Your task to perform on an android device: turn on data saver in the chrome app Image 0: 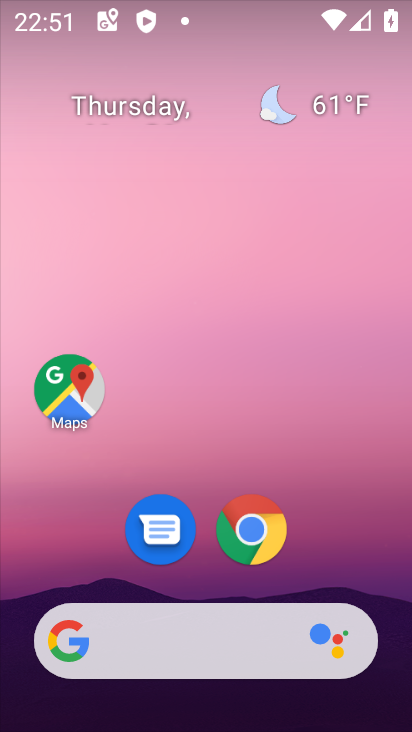
Step 0: click (276, 544)
Your task to perform on an android device: turn on data saver in the chrome app Image 1: 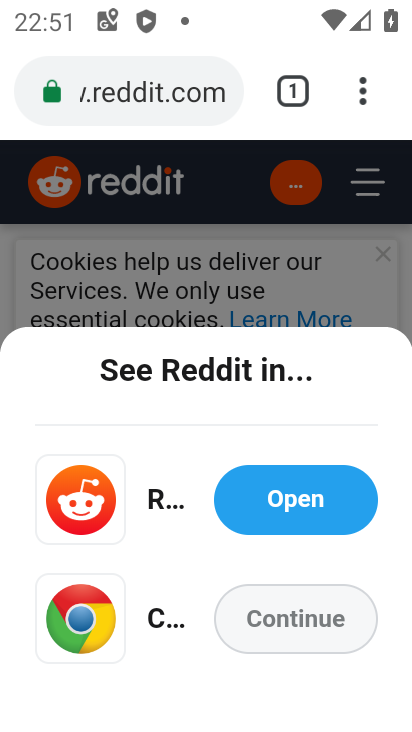
Step 1: click (361, 107)
Your task to perform on an android device: turn on data saver in the chrome app Image 2: 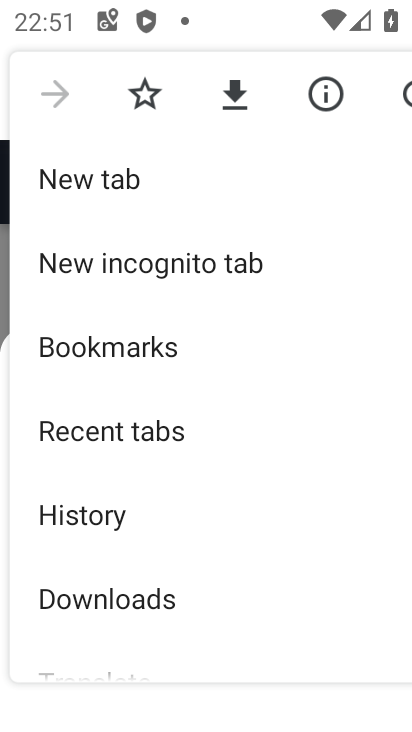
Step 2: drag from (215, 598) to (179, 192)
Your task to perform on an android device: turn on data saver in the chrome app Image 3: 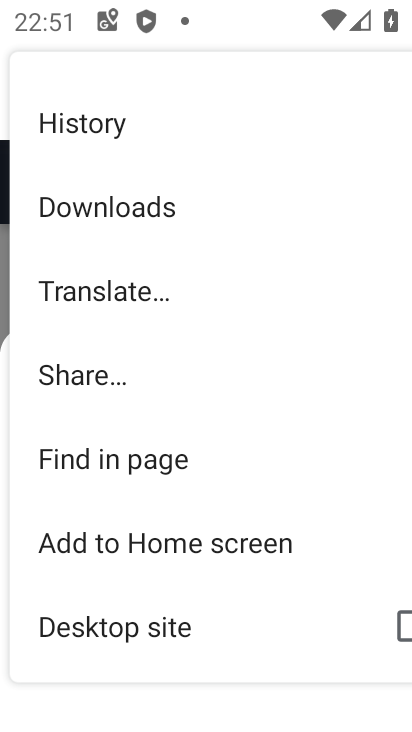
Step 3: drag from (183, 544) to (210, 178)
Your task to perform on an android device: turn on data saver in the chrome app Image 4: 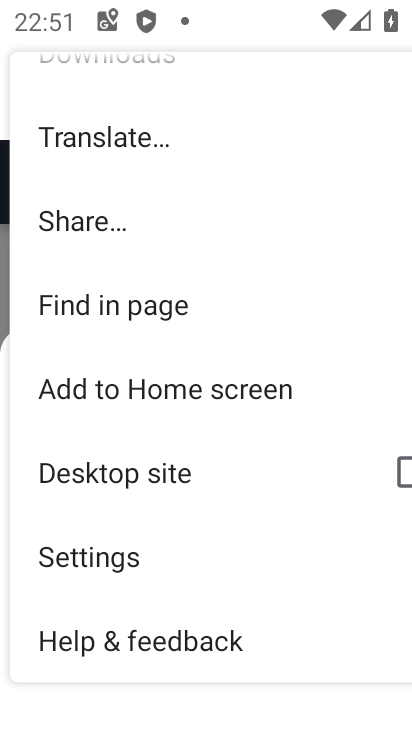
Step 4: click (152, 559)
Your task to perform on an android device: turn on data saver in the chrome app Image 5: 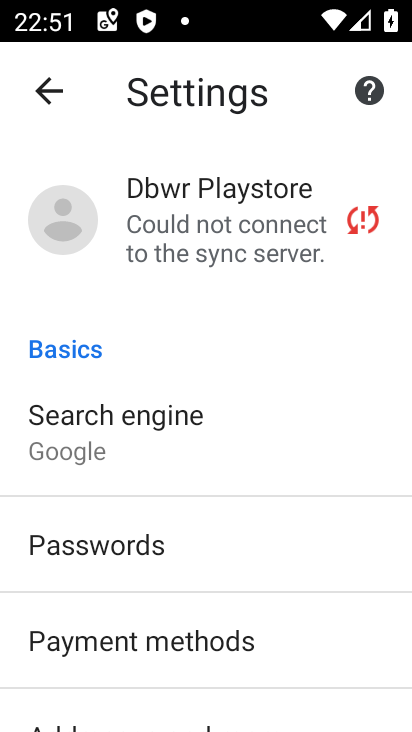
Step 5: drag from (181, 630) to (234, 139)
Your task to perform on an android device: turn on data saver in the chrome app Image 6: 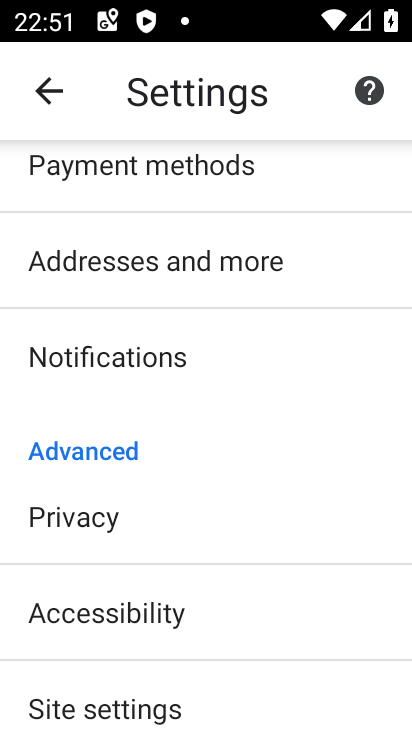
Step 6: drag from (223, 489) to (283, 137)
Your task to perform on an android device: turn on data saver in the chrome app Image 7: 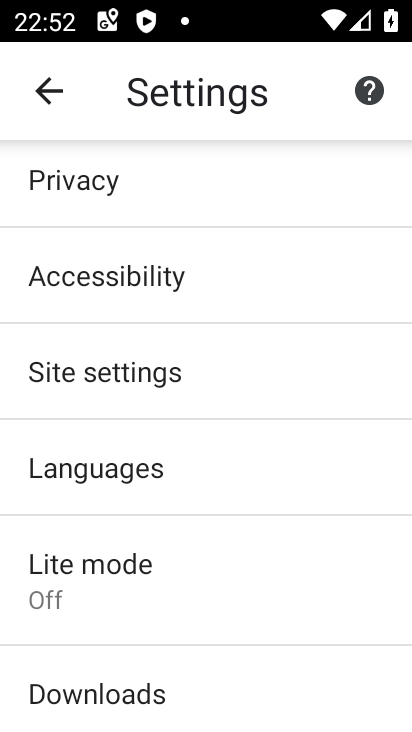
Step 7: click (206, 595)
Your task to perform on an android device: turn on data saver in the chrome app Image 8: 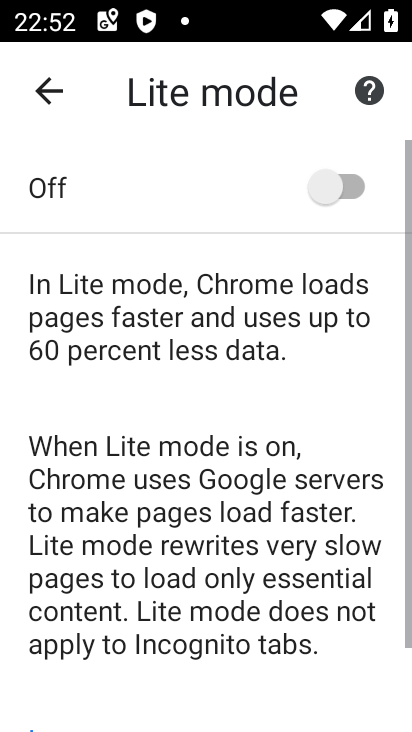
Step 8: click (343, 194)
Your task to perform on an android device: turn on data saver in the chrome app Image 9: 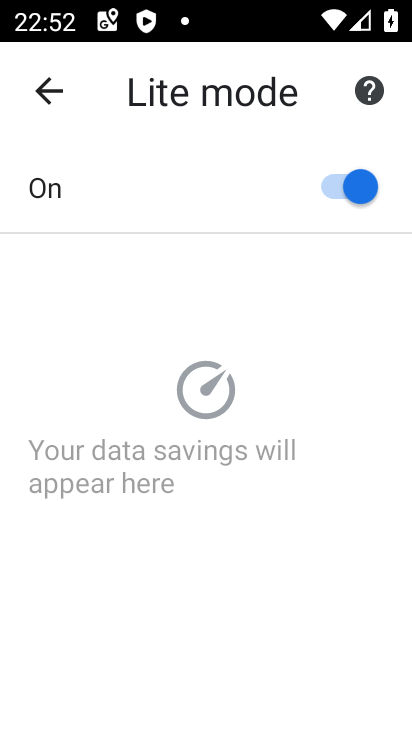
Step 9: task complete